Your task to perform on an android device: toggle show notifications on the lock screen Image 0: 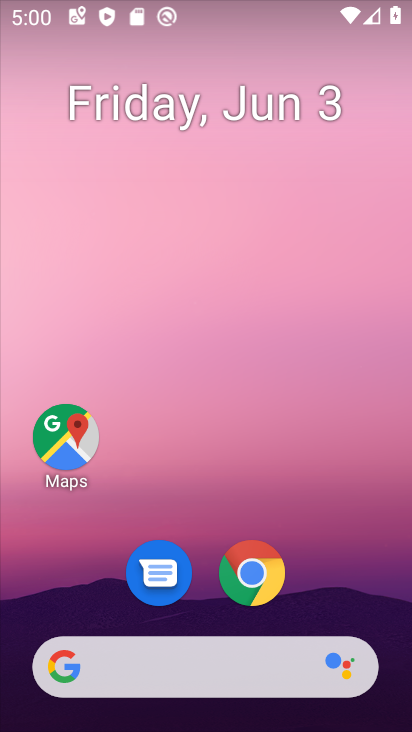
Step 0: drag from (190, 561) to (240, 208)
Your task to perform on an android device: toggle show notifications on the lock screen Image 1: 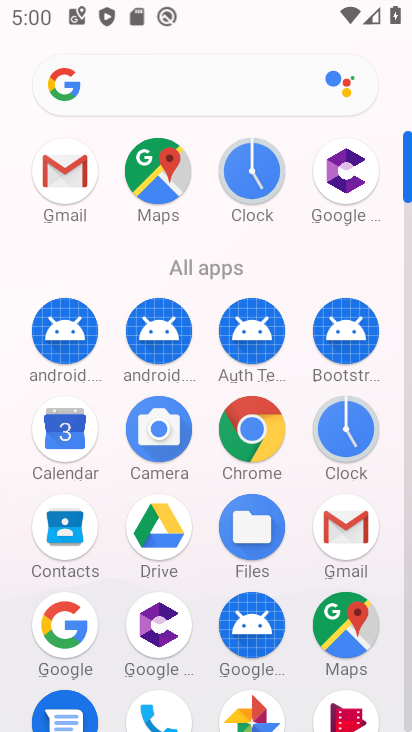
Step 1: drag from (214, 664) to (215, 388)
Your task to perform on an android device: toggle show notifications on the lock screen Image 2: 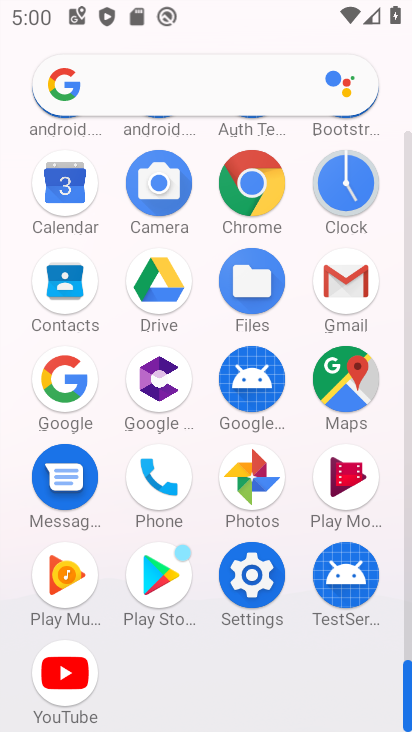
Step 2: click (243, 573)
Your task to perform on an android device: toggle show notifications on the lock screen Image 3: 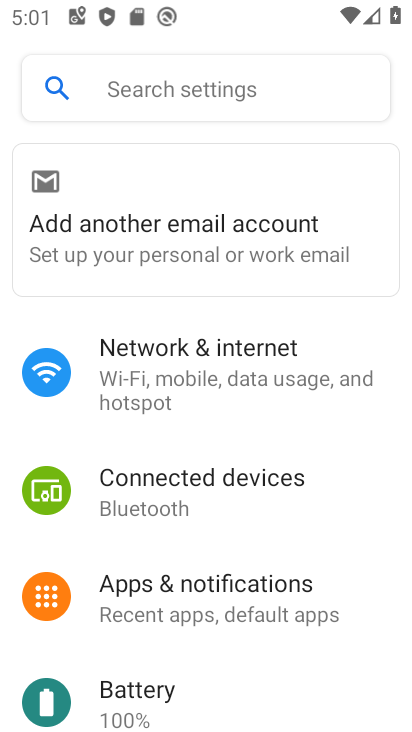
Step 3: click (216, 620)
Your task to perform on an android device: toggle show notifications on the lock screen Image 4: 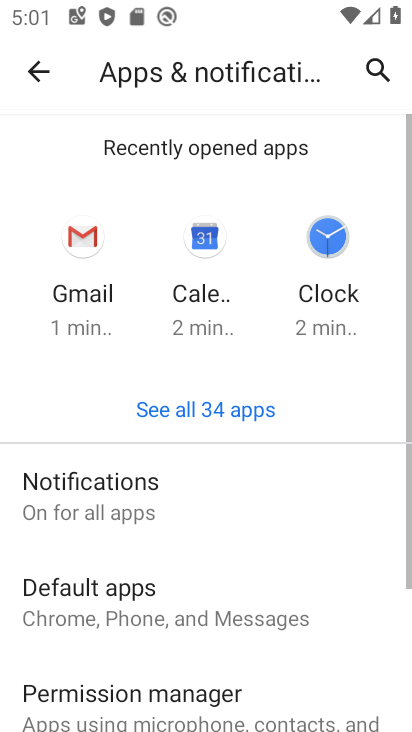
Step 4: click (109, 516)
Your task to perform on an android device: toggle show notifications on the lock screen Image 5: 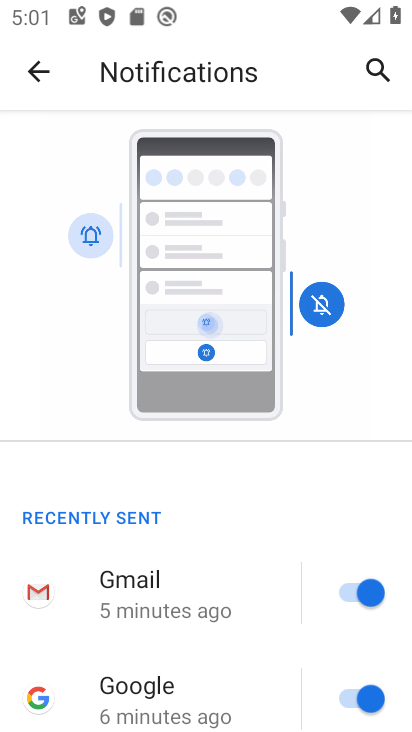
Step 5: drag from (180, 642) to (200, 499)
Your task to perform on an android device: toggle show notifications on the lock screen Image 6: 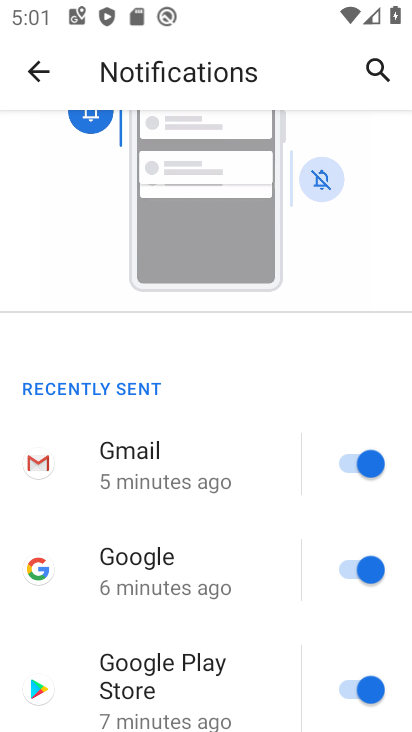
Step 6: drag from (213, 618) to (264, 453)
Your task to perform on an android device: toggle show notifications on the lock screen Image 7: 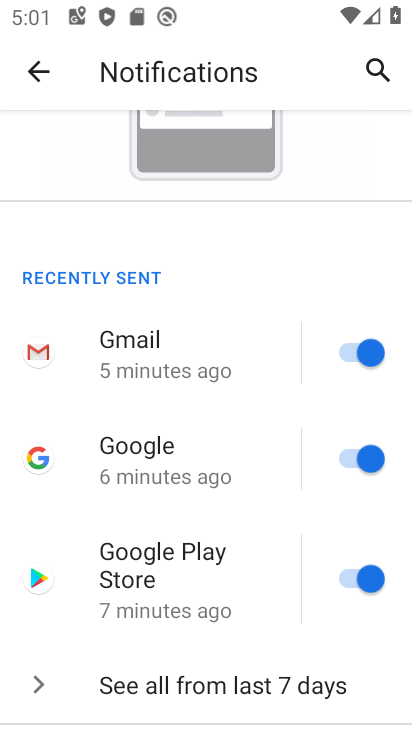
Step 7: drag from (231, 576) to (257, 374)
Your task to perform on an android device: toggle show notifications on the lock screen Image 8: 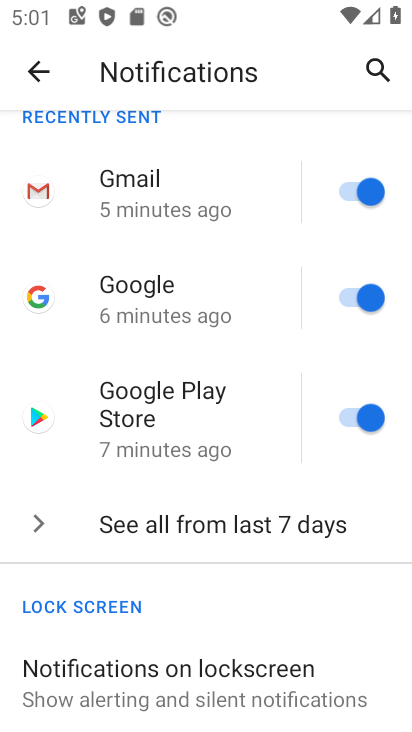
Step 8: drag from (221, 575) to (249, 386)
Your task to perform on an android device: toggle show notifications on the lock screen Image 9: 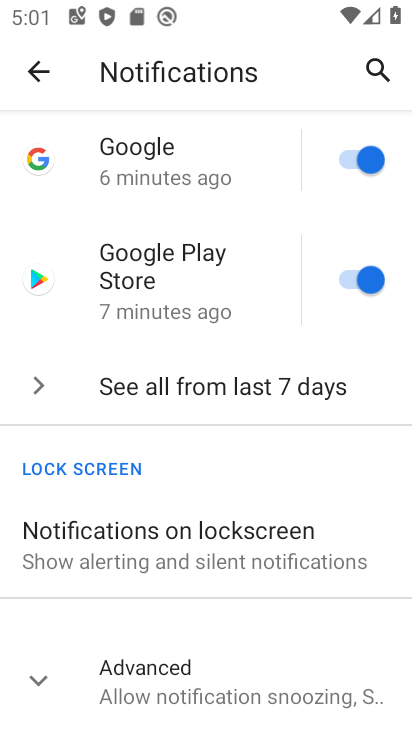
Step 9: click (187, 581)
Your task to perform on an android device: toggle show notifications on the lock screen Image 10: 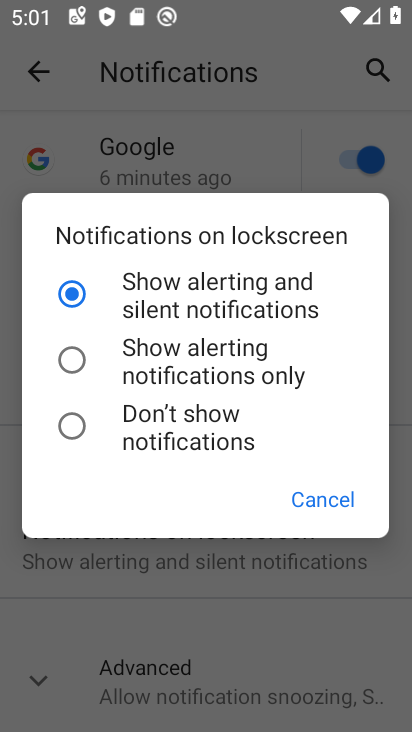
Step 10: click (77, 432)
Your task to perform on an android device: toggle show notifications on the lock screen Image 11: 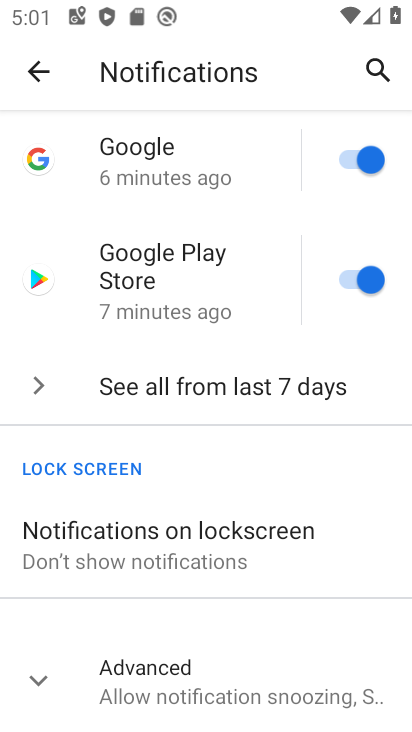
Step 11: task complete